Your task to perform on an android device: open chrome privacy settings Image 0: 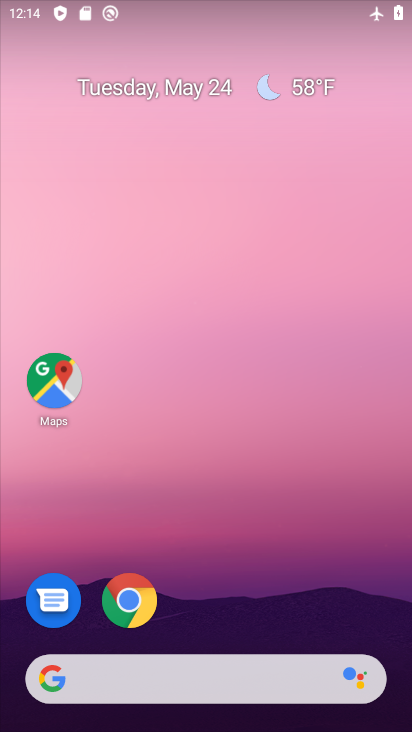
Step 0: click (149, 613)
Your task to perform on an android device: open chrome privacy settings Image 1: 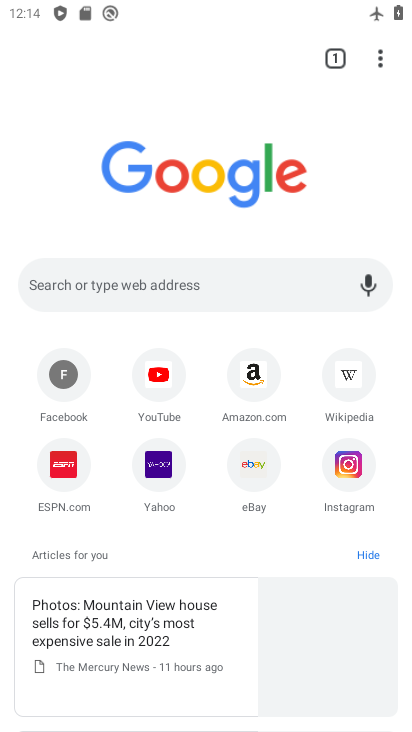
Step 1: click (377, 52)
Your task to perform on an android device: open chrome privacy settings Image 2: 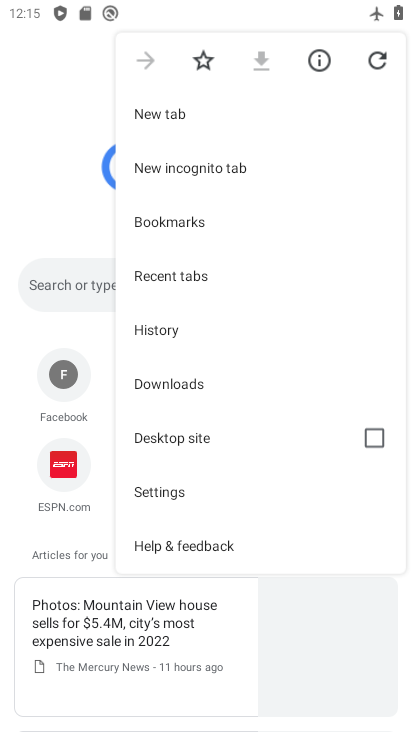
Step 2: click (248, 485)
Your task to perform on an android device: open chrome privacy settings Image 3: 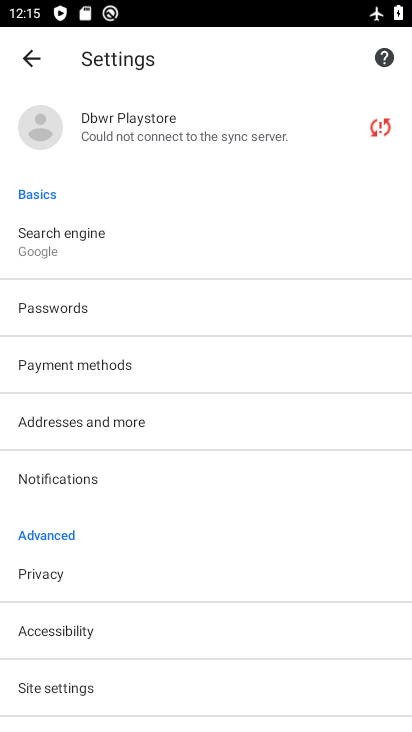
Step 3: click (171, 578)
Your task to perform on an android device: open chrome privacy settings Image 4: 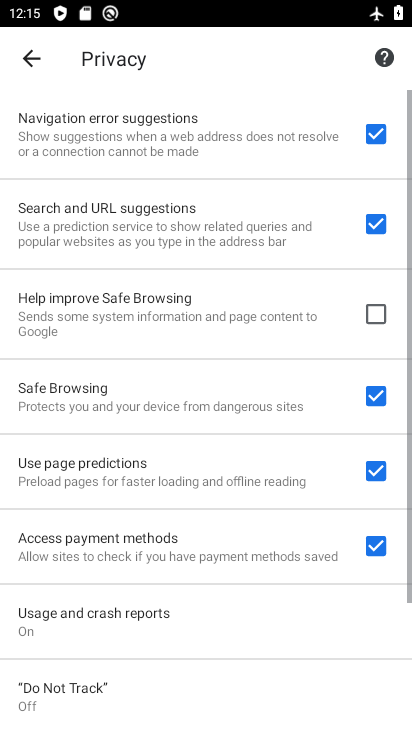
Step 4: task complete